Your task to perform on an android device: turn on improve location accuracy Image 0: 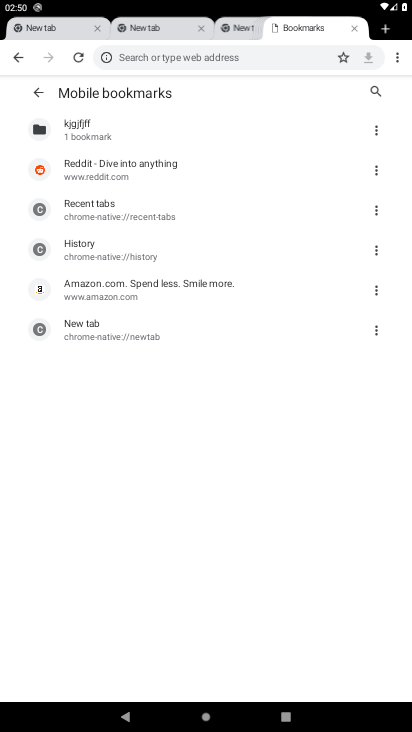
Step 0: press home button
Your task to perform on an android device: turn on improve location accuracy Image 1: 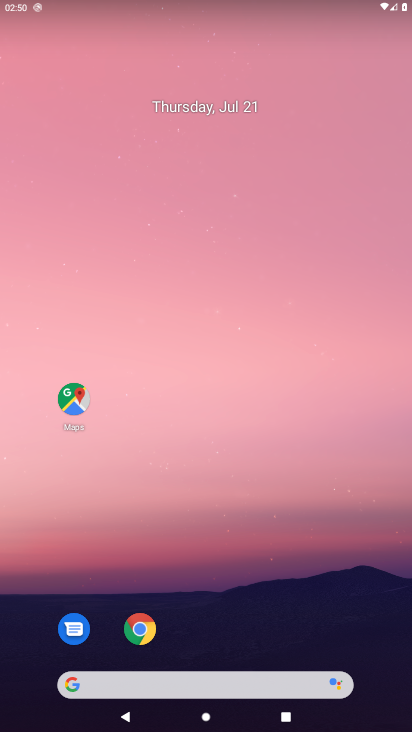
Step 1: drag from (36, 689) to (280, 214)
Your task to perform on an android device: turn on improve location accuracy Image 2: 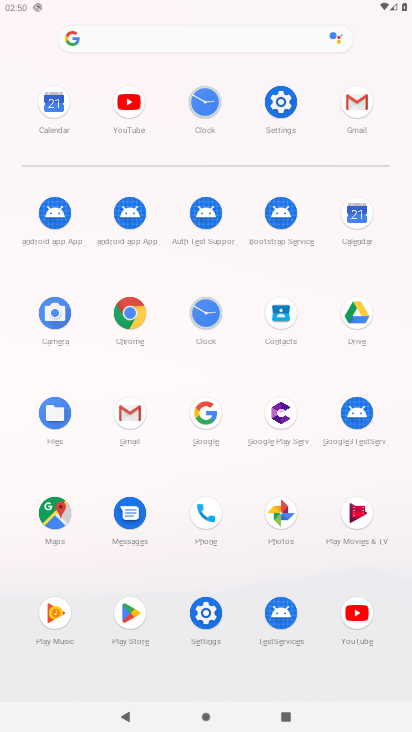
Step 2: click (203, 621)
Your task to perform on an android device: turn on improve location accuracy Image 3: 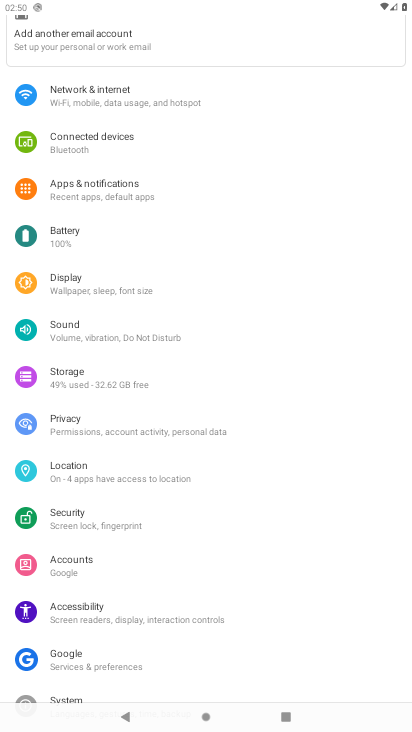
Step 3: click (72, 482)
Your task to perform on an android device: turn on improve location accuracy Image 4: 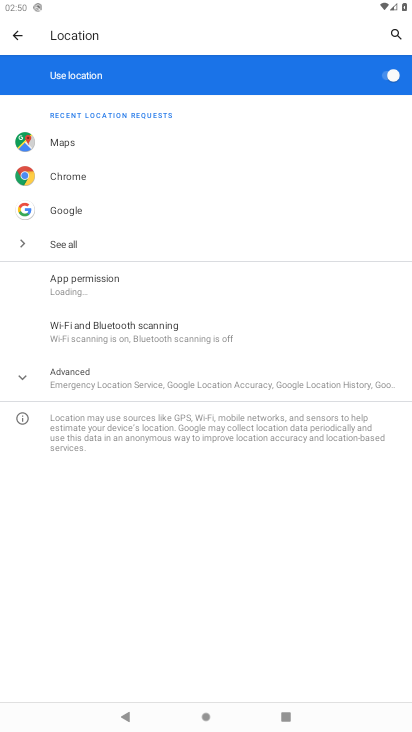
Step 4: click (82, 384)
Your task to perform on an android device: turn on improve location accuracy Image 5: 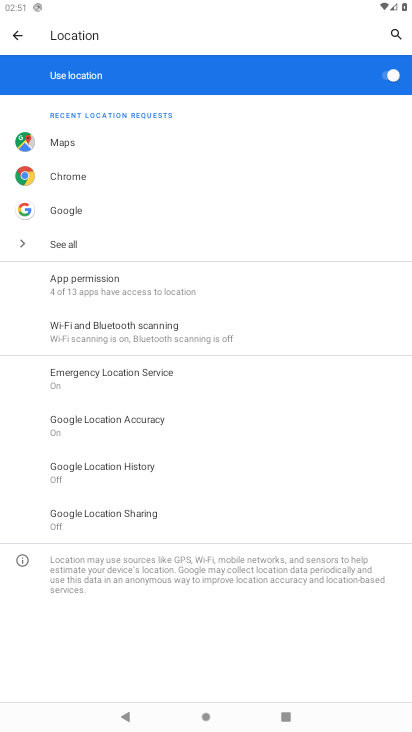
Step 5: task complete